Your task to perform on an android device: What's on my calendar today? Image 0: 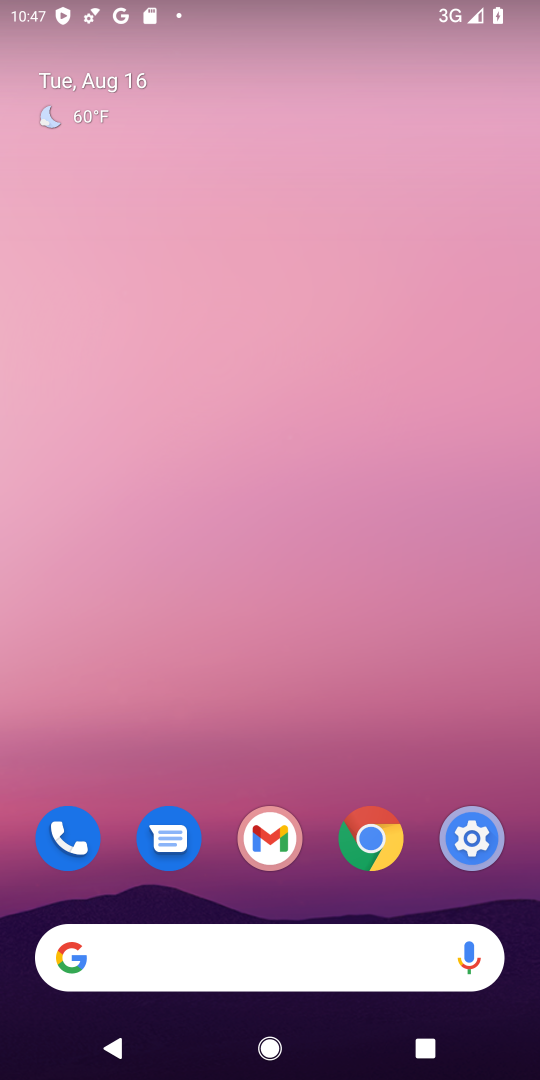
Step 0: press home button
Your task to perform on an android device: What's on my calendar today? Image 1: 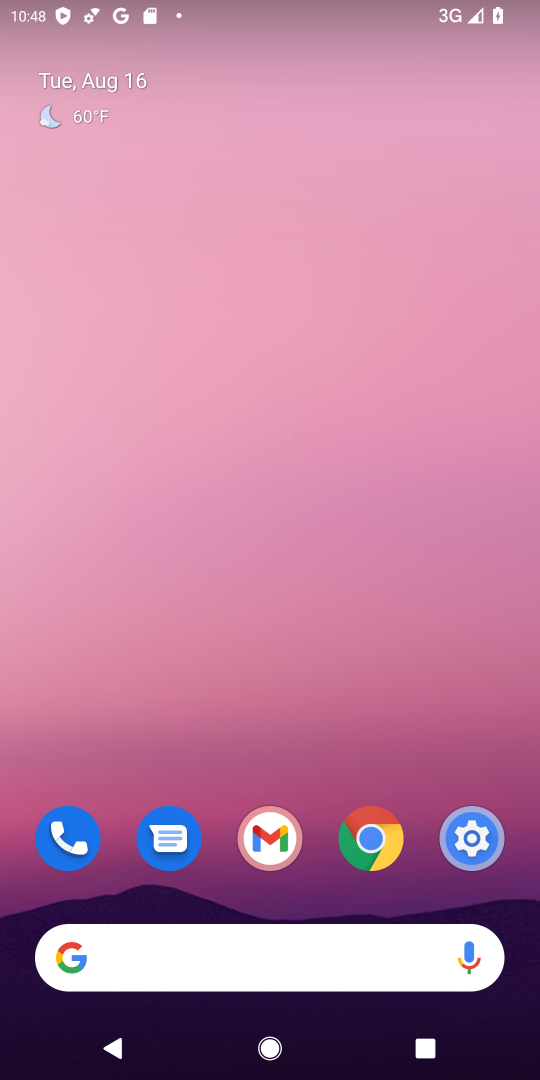
Step 1: drag from (315, 686) to (289, 265)
Your task to perform on an android device: What's on my calendar today? Image 2: 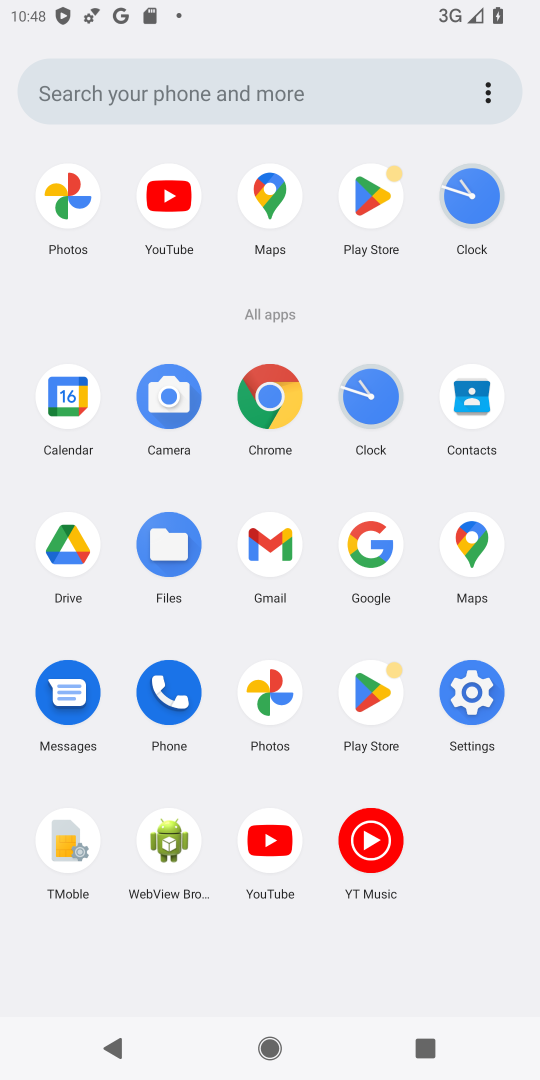
Step 2: click (56, 393)
Your task to perform on an android device: What's on my calendar today? Image 3: 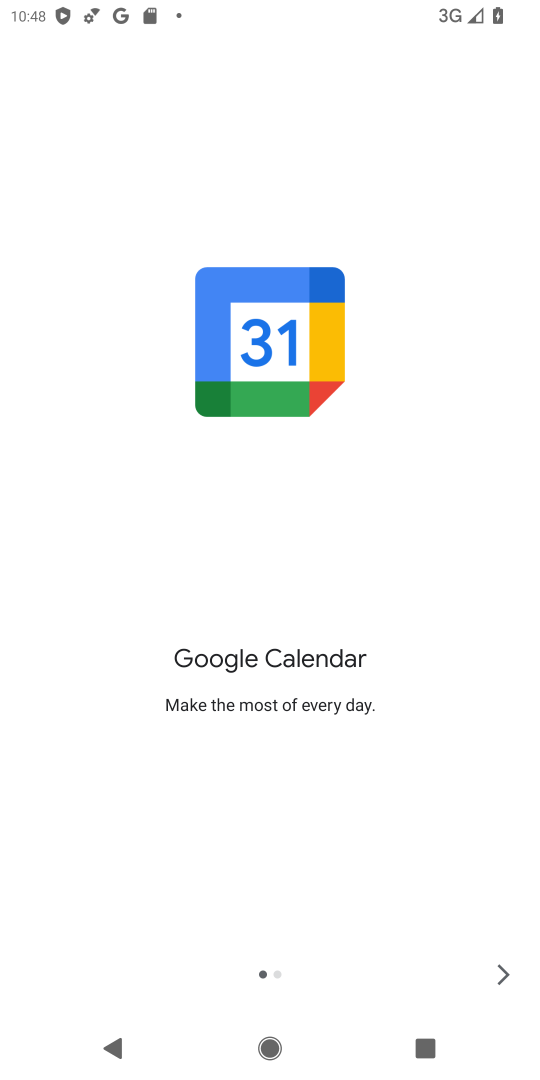
Step 3: click (501, 981)
Your task to perform on an android device: What's on my calendar today? Image 4: 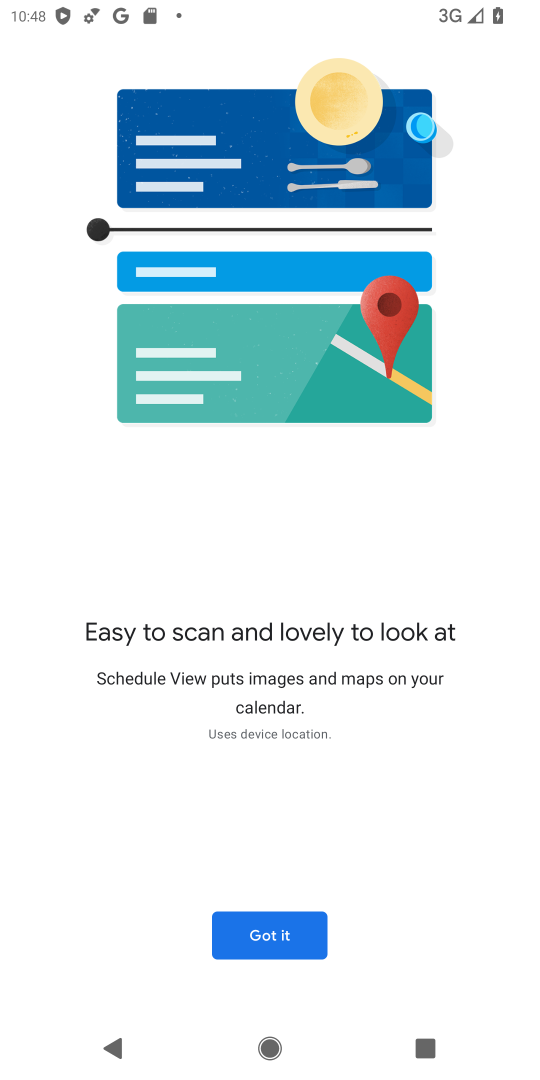
Step 4: click (259, 936)
Your task to perform on an android device: What's on my calendar today? Image 5: 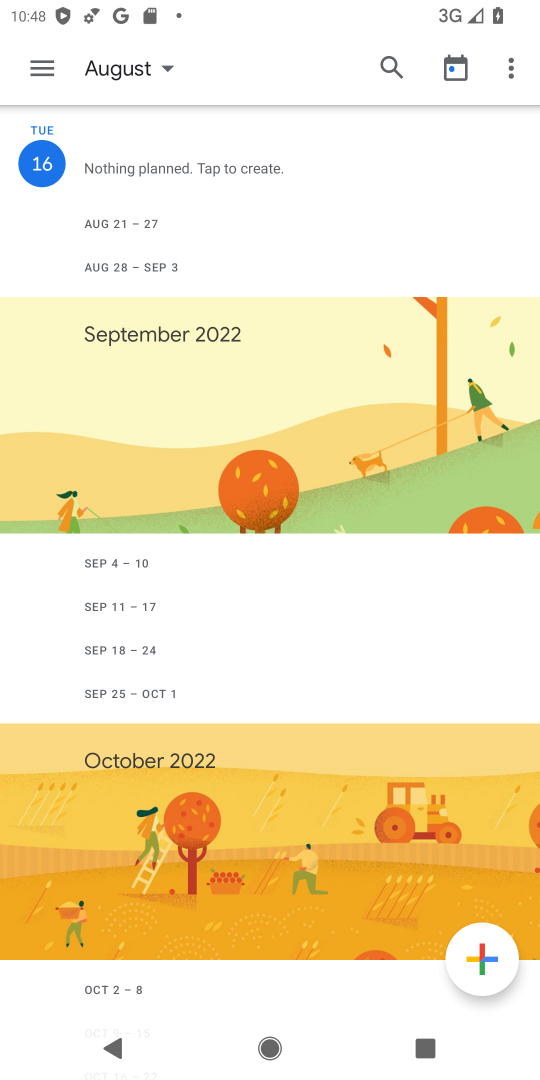
Step 5: click (160, 71)
Your task to perform on an android device: What's on my calendar today? Image 6: 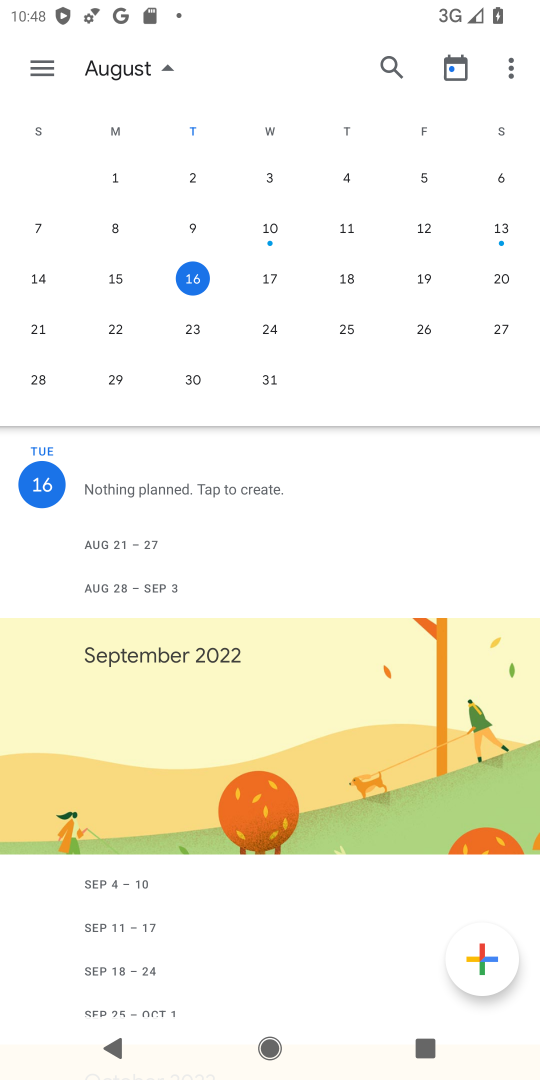
Step 6: click (196, 280)
Your task to perform on an android device: What's on my calendar today? Image 7: 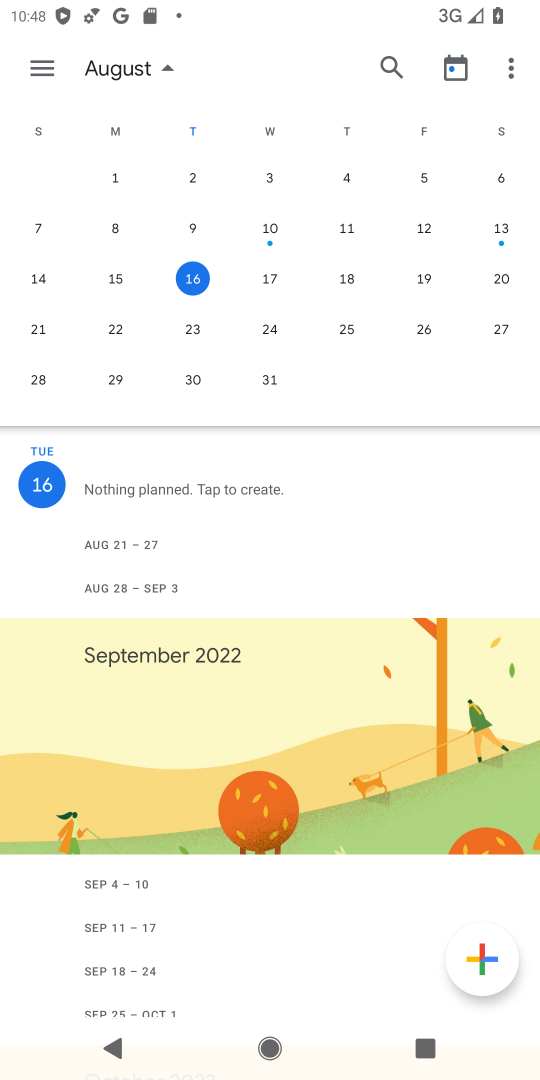
Step 7: task complete